Your task to perform on an android device: Open sound settings Image 0: 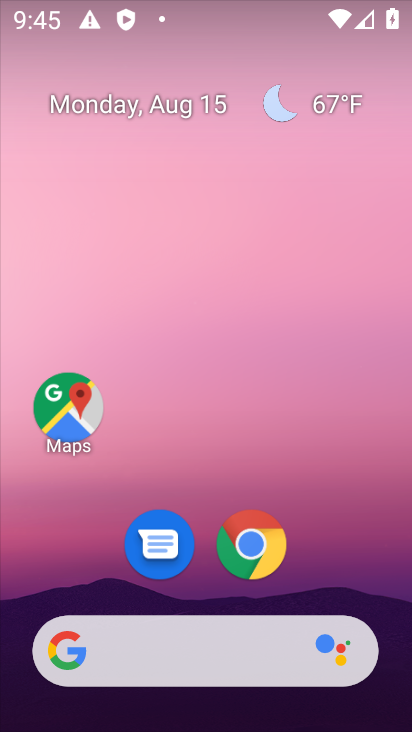
Step 0: drag from (214, 631) to (228, 71)
Your task to perform on an android device: Open sound settings Image 1: 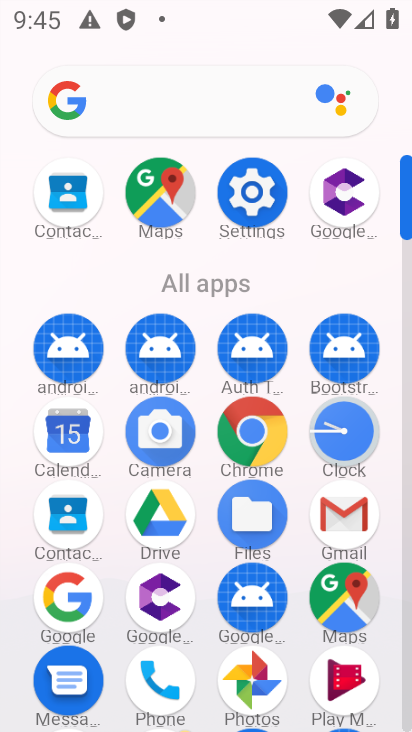
Step 1: click (251, 192)
Your task to perform on an android device: Open sound settings Image 2: 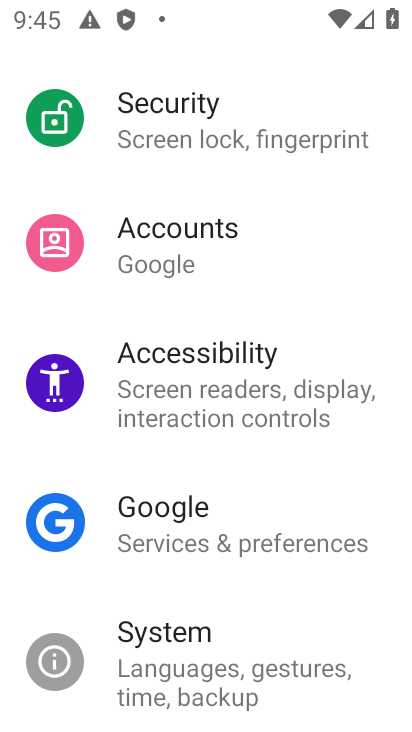
Step 2: drag from (196, 154) to (288, 561)
Your task to perform on an android device: Open sound settings Image 3: 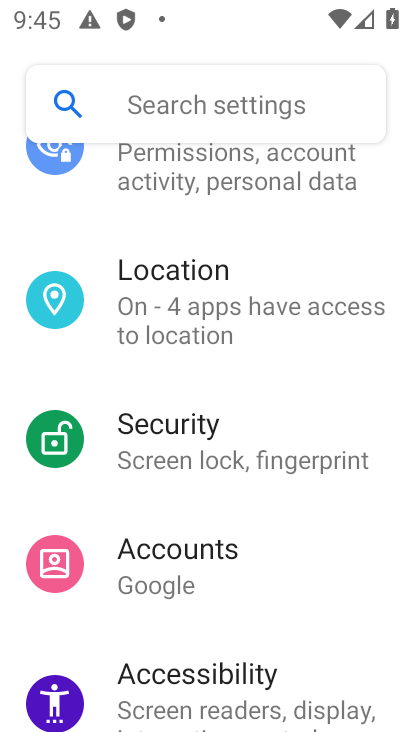
Step 3: drag from (178, 434) to (177, 721)
Your task to perform on an android device: Open sound settings Image 4: 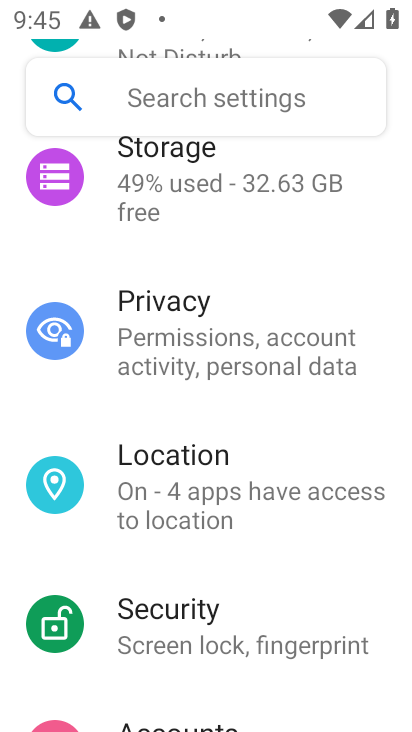
Step 4: drag from (178, 255) to (182, 703)
Your task to perform on an android device: Open sound settings Image 5: 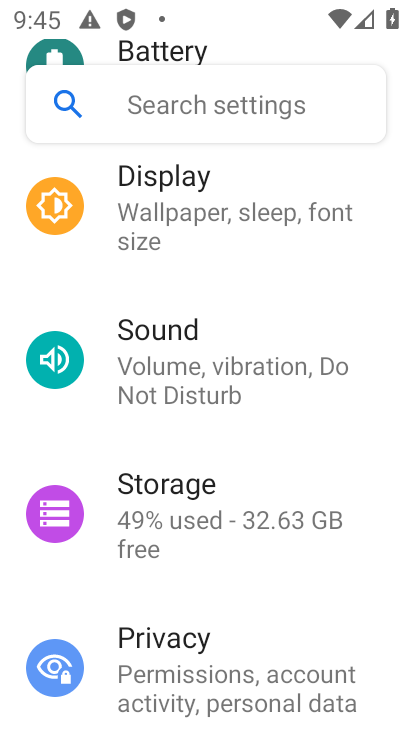
Step 5: click (182, 385)
Your task to perform on an android device: Open sound settings Image 6: 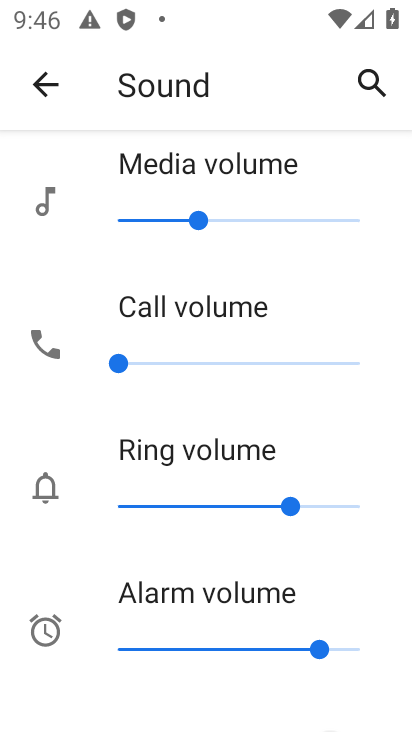
Step 6: task complete